Your task to perform on an android device: turn off javascript in the chrome app Image 0: 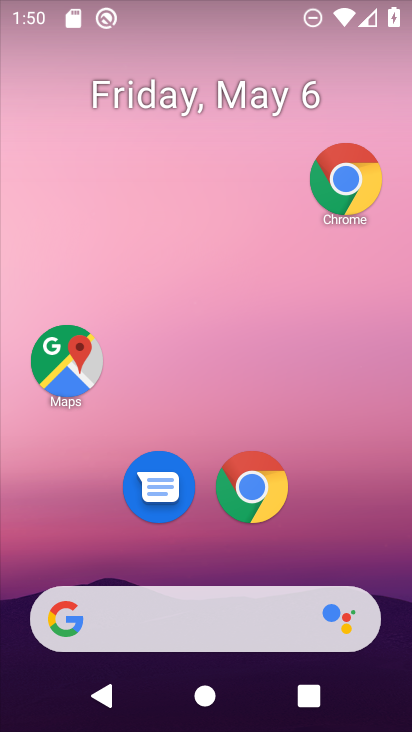
Step 0: click (261, 511)
Your task to perform on an android device: turn off javascript in the chrome app Image 1: 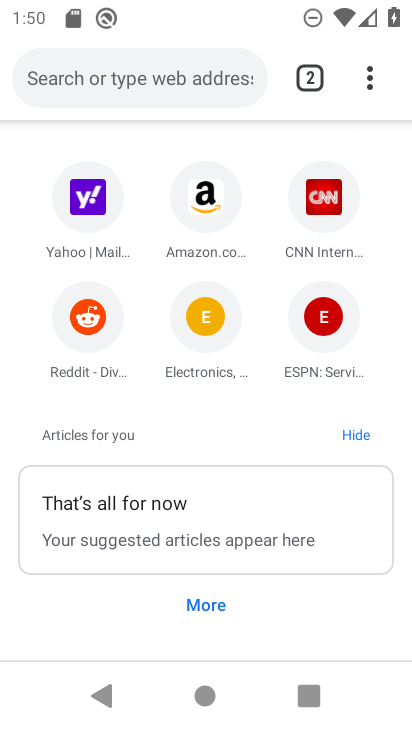
Step 1: click (374, 76)
Your task to perform on an android device: turn off javascript in the chrome app Image 2: 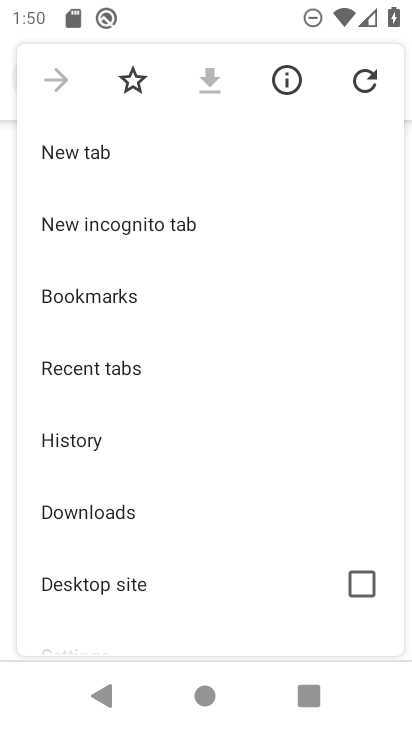
Step 2: drag from (174, 578) to (207, 201)
Your task to perform on an android device: turn off javascript in the chrome app Image 3: 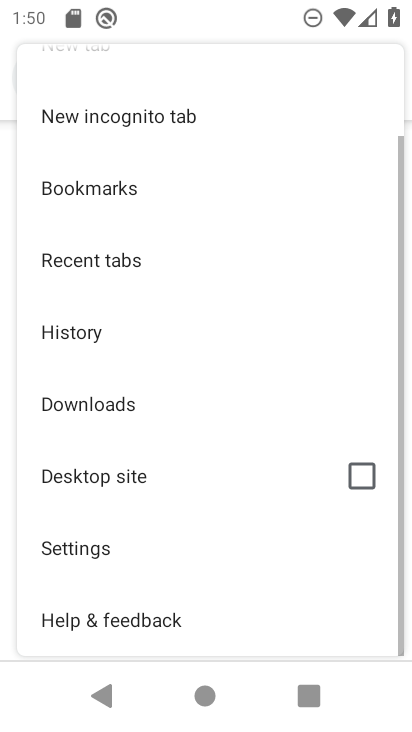
Step 3: click (186, 547)
Your task to perform on an android device: turn off javascript in the chrome app Image 4: 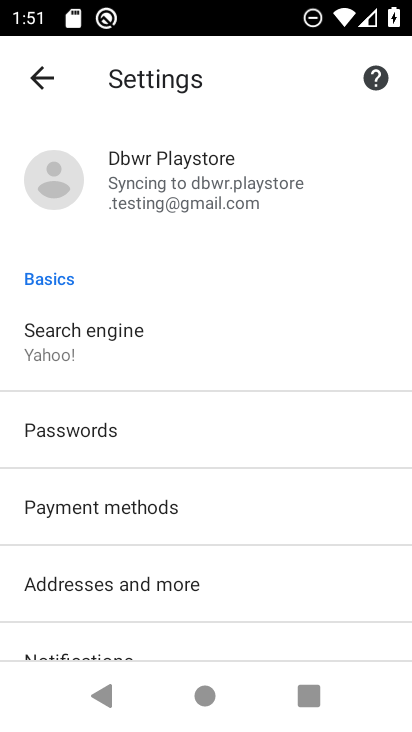
Step 4: drag from (170, 611) to (184, 309)
Your task to perform on an android device: turn off javascript in the chrome app Image 5: 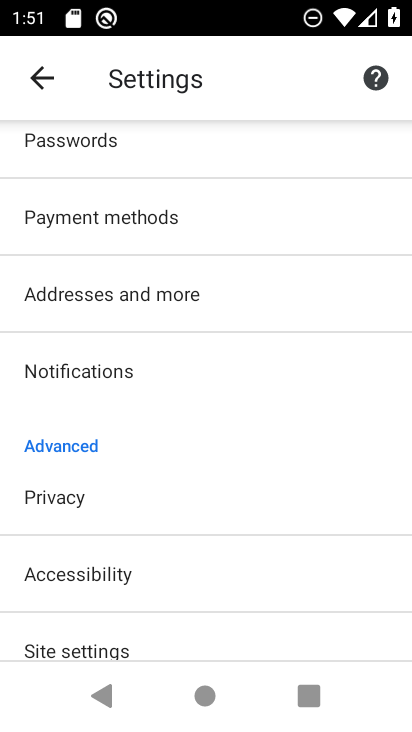
Step 5: click (115, 639)
Your task to perform on an android device: turn off javascript in the chrome app Image 6: 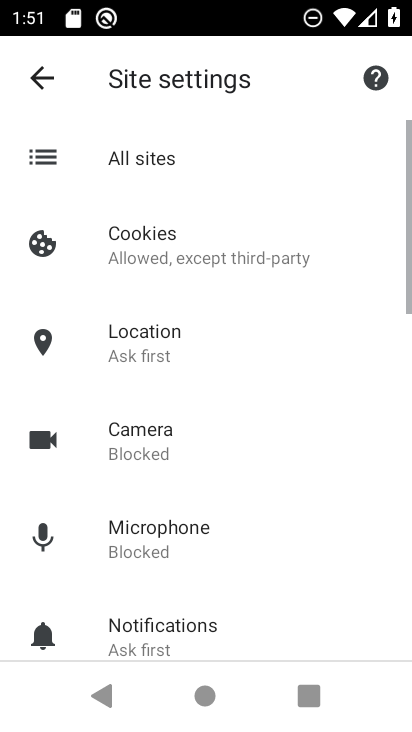
Step 6: drag from (203, 579) to (241, 226)
Your task to perform on an android device: turn off javascript in the chrome app Image 7: 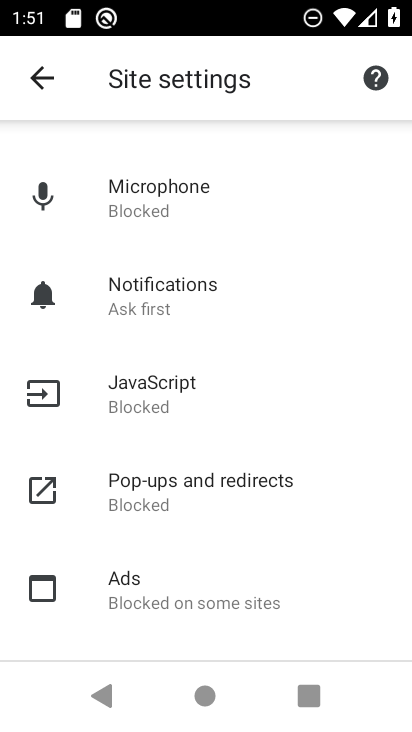
Step 7: click (213, 417)
Your task to perform on an android device: turn off javascript in the chrome app Image 8: 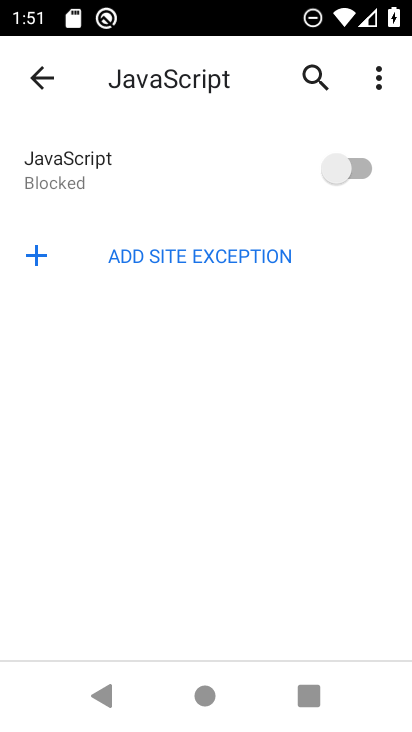
Step 8: task complete